Your task to perform on an android device: Check the news Image 0: 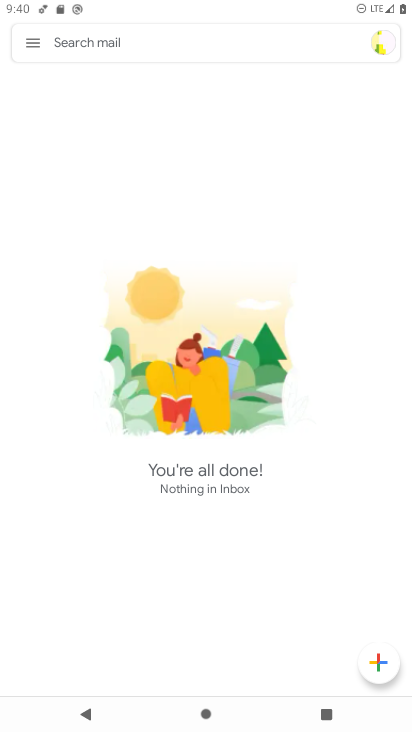
Step 0: press home button
Your task to perform on an android device: Check the news Image 1: 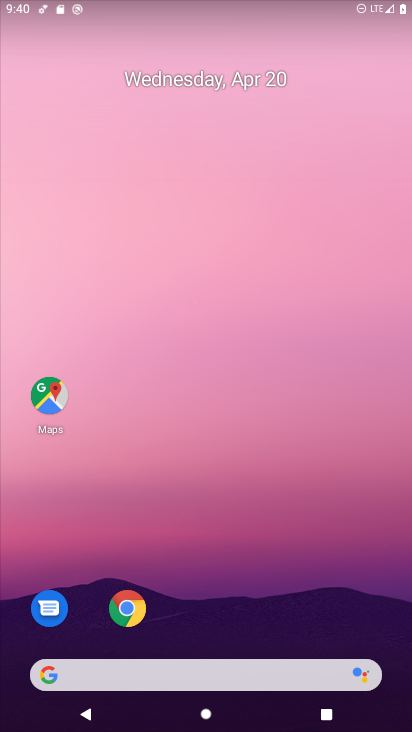
Step 1: drag from (234, 593) to (302, 73)
Your task to perform on an android device: Check the news Image 2: 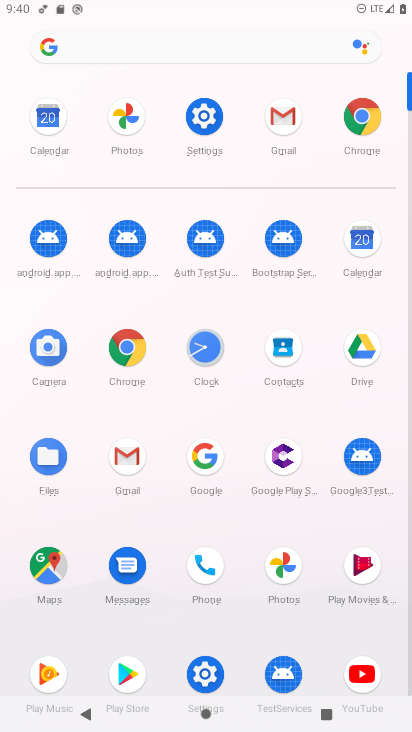
Step 2: click (138, 43)
Your task to perform on an android device: Check the news Image 3: 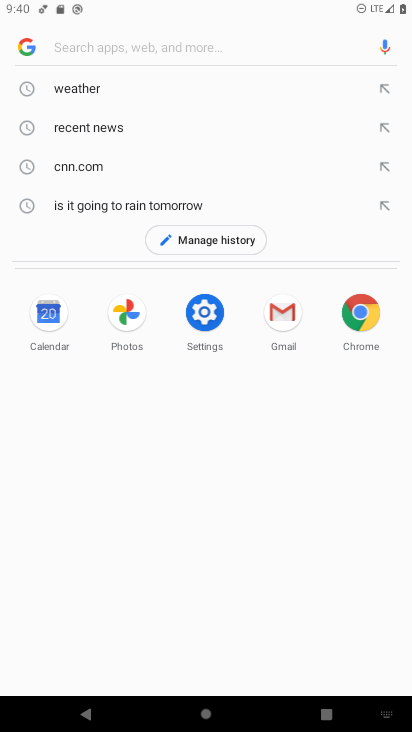
Step 3: type "news"
Your task to perform on an android device: Check the news Image 4: 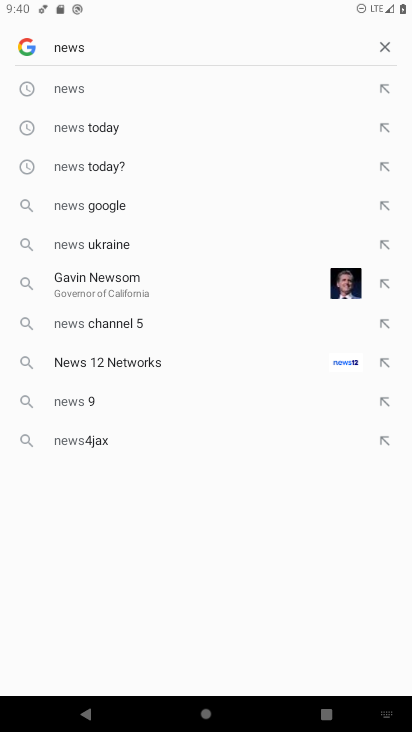
Step 4: click (89, 86)
Your task to perform on an android device: Check the news Image 5: 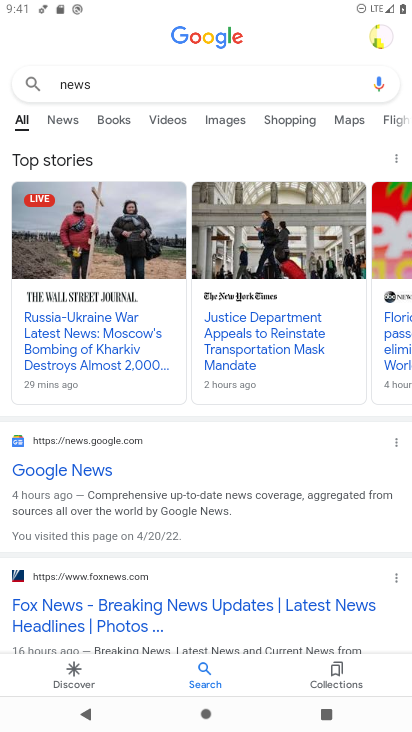
Step 5: task complete